Your task to perform on an android device: Open notification settings Image 0: 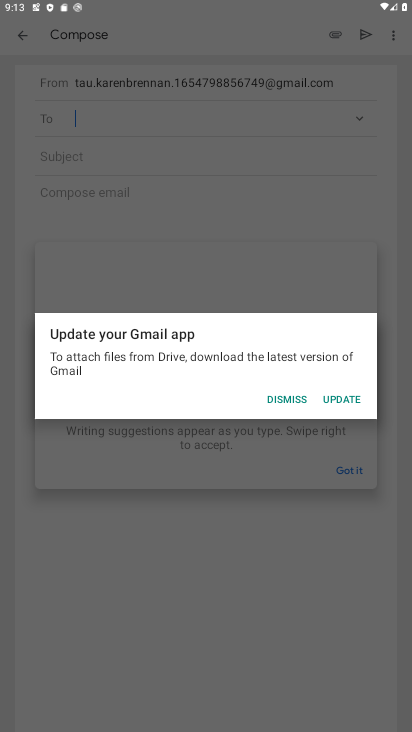
Step 0: press home button
Your task to perform on an android device: Open notification settings Image 1: 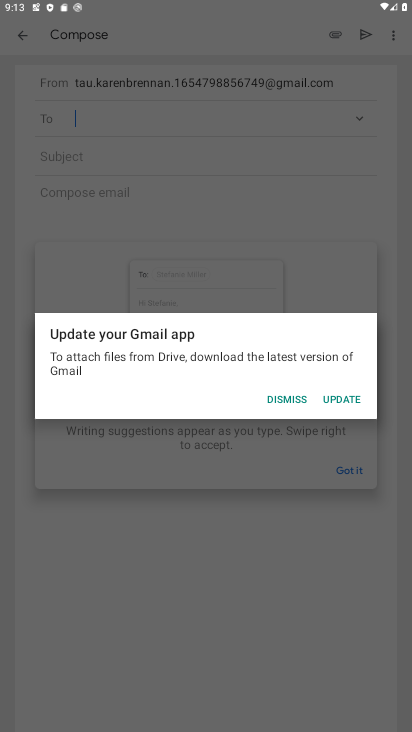
Step 1: press home button
Your task to perform on an android device: Open notification settings Image 2: 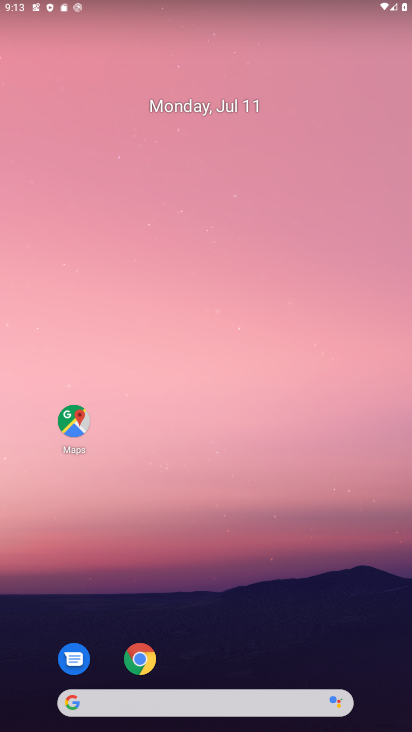
Step 2: drag from (200, 721) to (217, 156)
Your task to perform on an android device: Open notification settings Image 3: 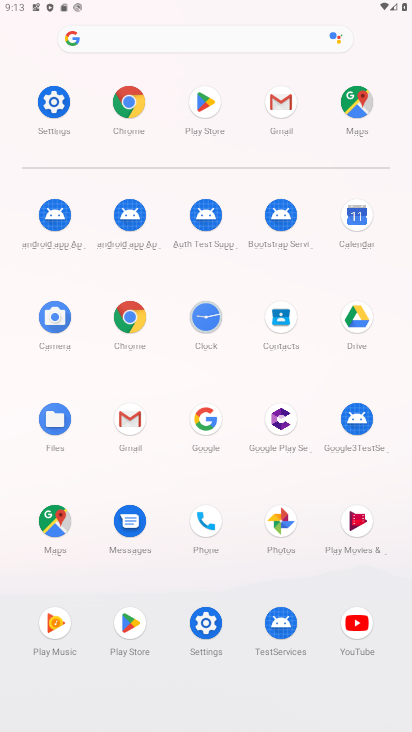
Step 3: click (51, 96)
Your task to perform on an android device: Open notification settings Image 4: 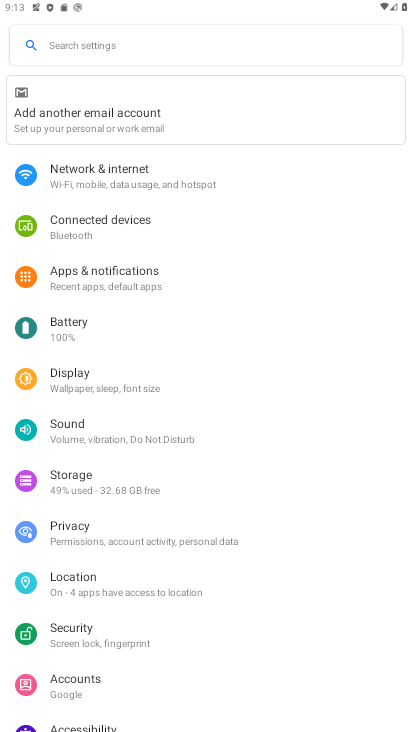
Step 4: click (89, 278)
Your task to perform on an android device: Open notification settings Image 5: 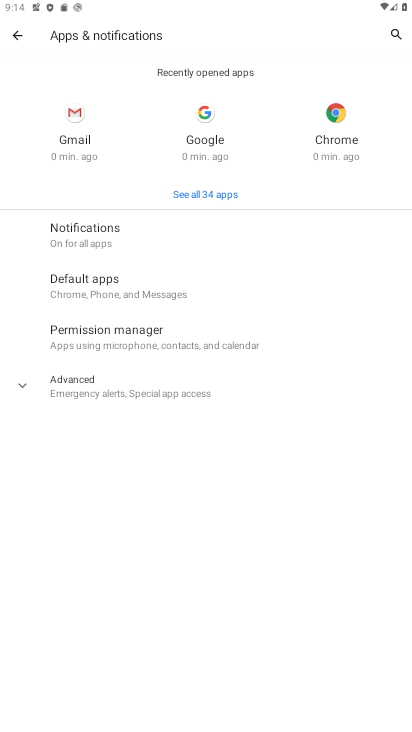
Step 5: click (77, 230)
Your task to perform on an android device: Open notification settings Image 6: 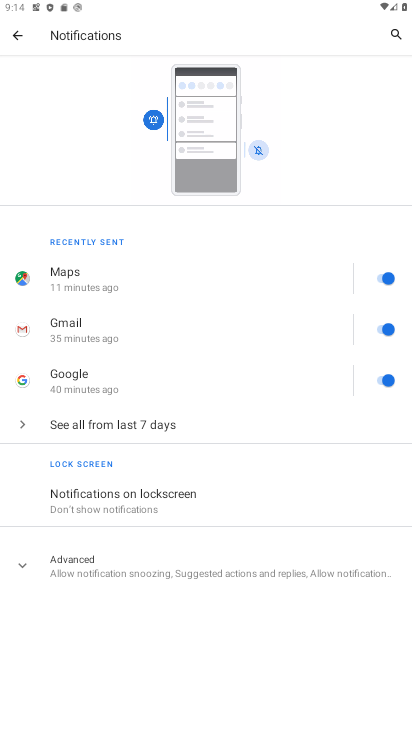
Step 6: task complete